Your task to perform on an android device: allow cookies in the chrome app Image 0: 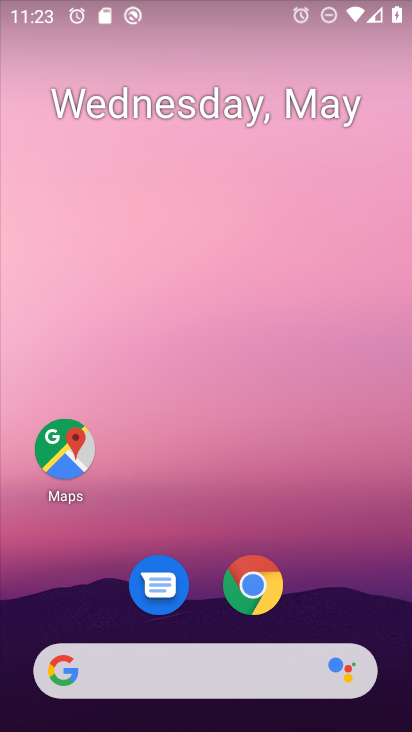
Step 0: drag from (286, 494) to (274, 50)
Your task to perform on an android device: allow cookies in the chrome app Image 1: 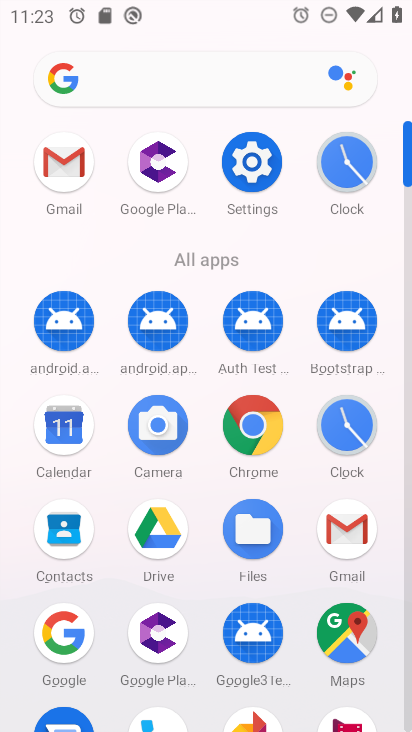
Step 1: click (265, 415)
Your task to perform on an android device: allow cookies in the chrome app Image 2: 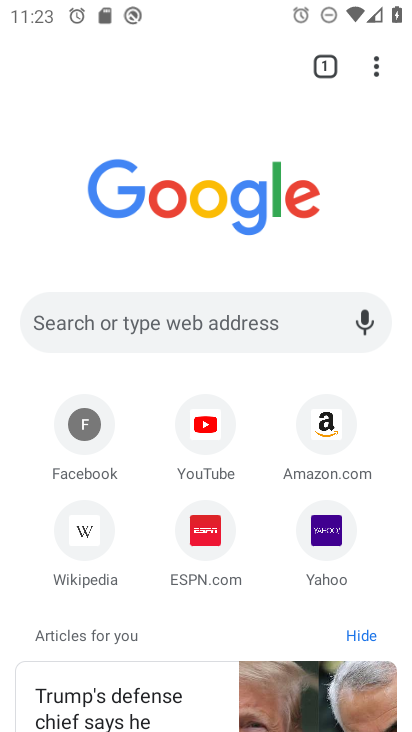
Step 2: click (376, 57)
Your task to perform on an android device: allow cookies in the chrome app Image 3: 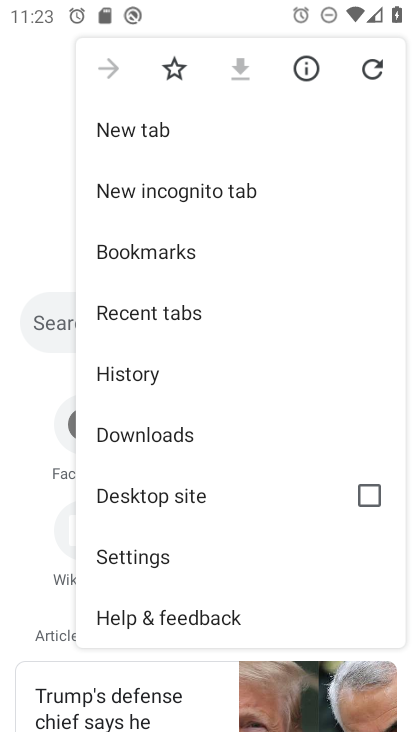
Step 3: click (178, 558)
Your task to perform on an android device: allow cookies in the chrome app Image 4: 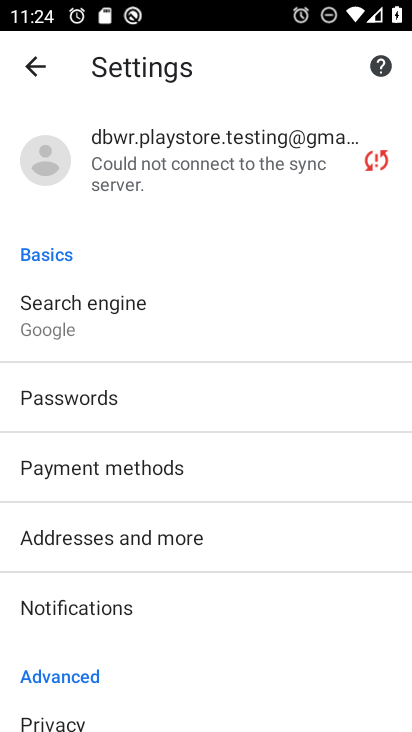
Step 4: drag from (178, 558) to (208, 329)
Your task to perform on an android device: allow cookies in the chrome app Image 5: 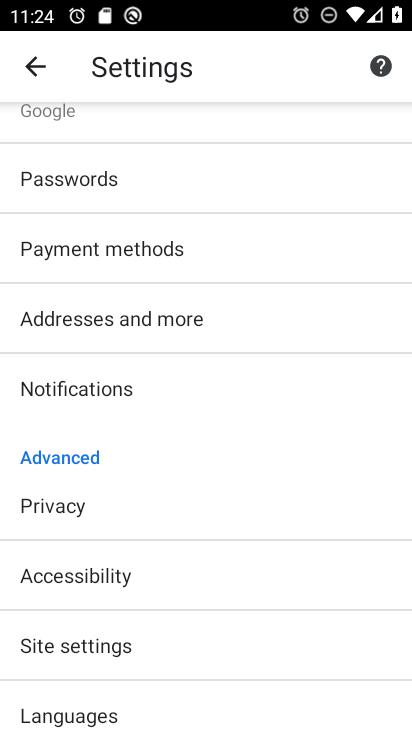
Step 5: click (210, 632)
Your task to perform on an android device: allow cookies in the chrome app Image 6: 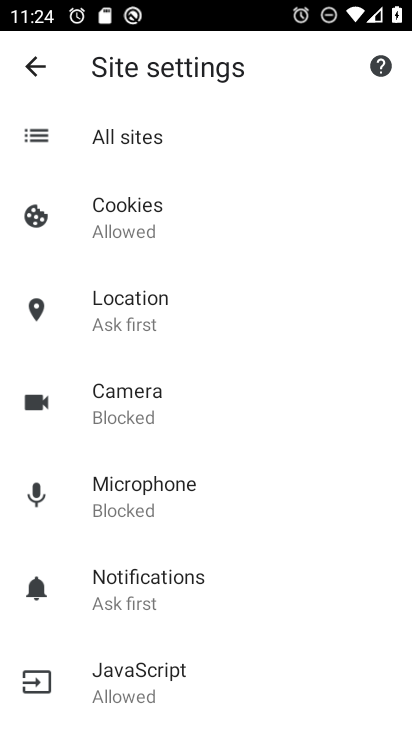
Step 6: task complete